Your task to perform on an android device: see tabs open on other devices in the chrome app Image 0: 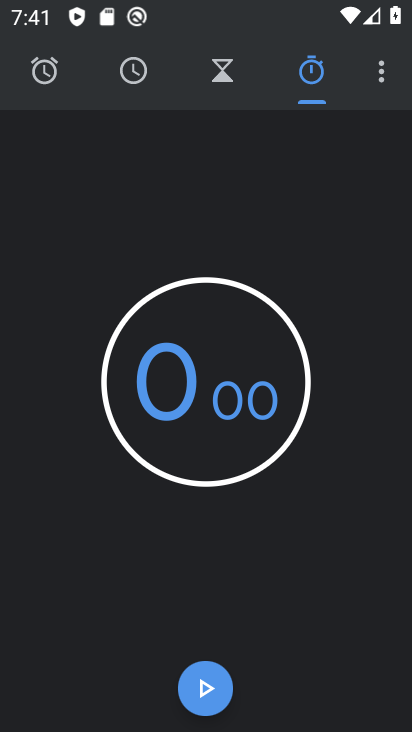
Step 0: press home button
Your task to perform on an android device: see tabs open on other devices in the chrome app Image 1: 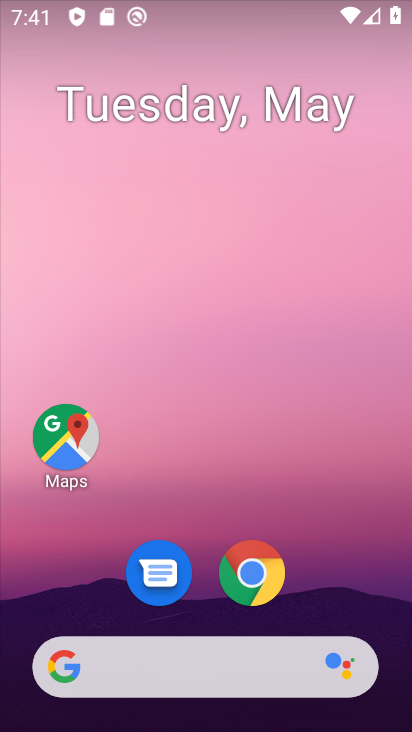
Step 1: click (253, 570)
Your task to perform on an android device: see tabs open on other devices in the chrome app Image 2: 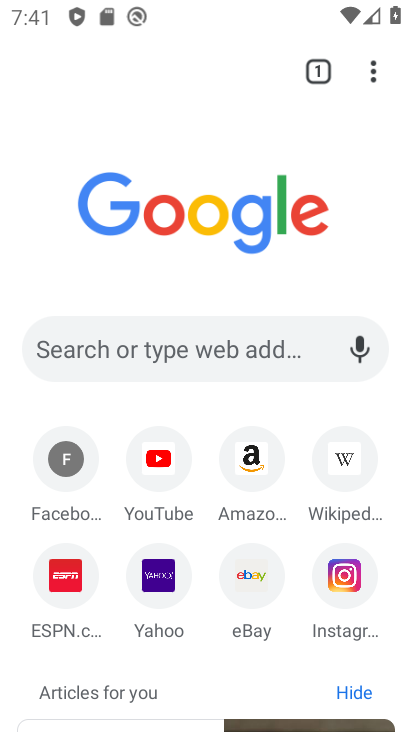
Step 2: click (380, 65)
Your task to perform on an android device: see tabs open on other devices in the chrome app Image 3: 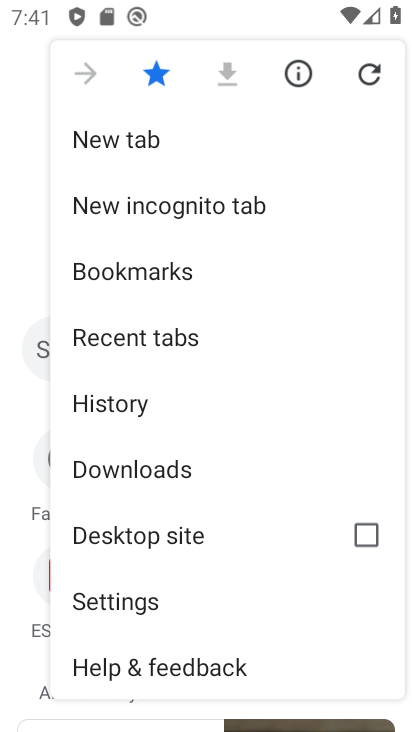
Step 3: click (139, 330)
Your task to perform on an android device: see tabs open on other devices in the chrome app Image 4: 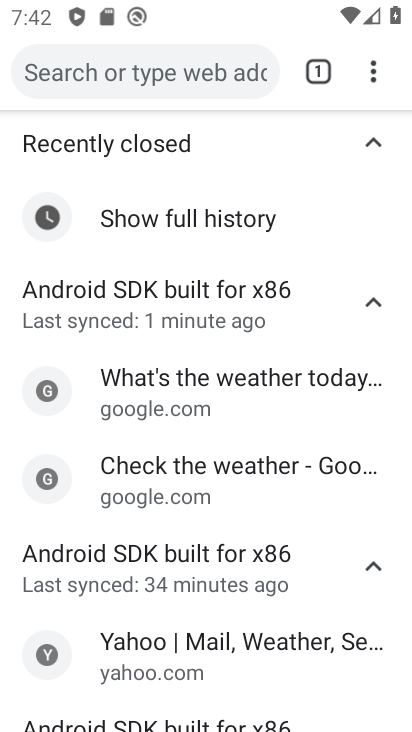
Step 4: task complete